Your task to perform on an android device: find photos in the google photos app Image 0: 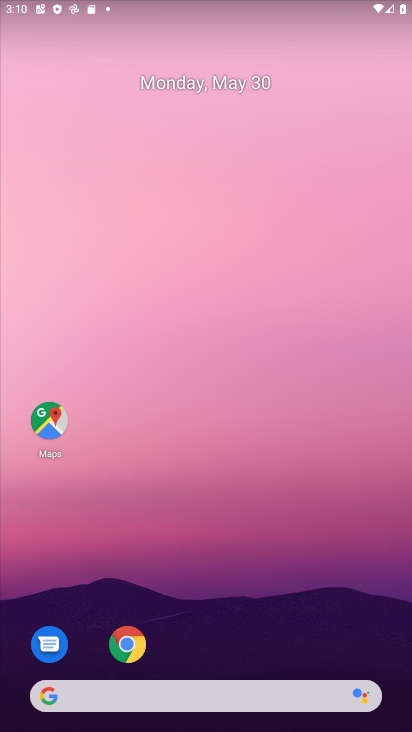
Step 0: drag from (226, 635) to (242, 257)
Your task to perform on an android device: find photos in the google photos app Image 1: 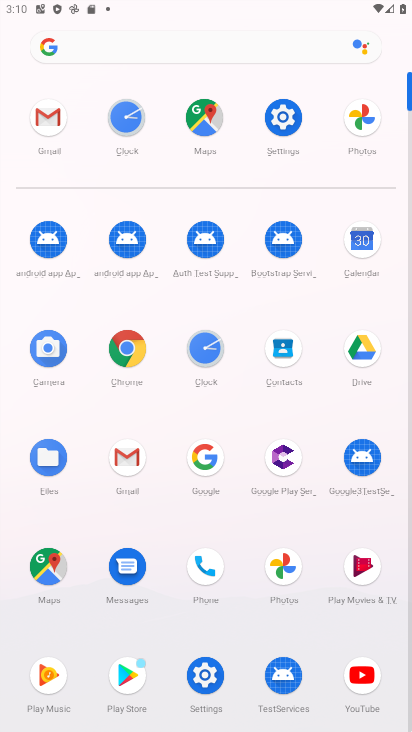
Step 1: click (288, 559)
Your task to perform on an android device: find photos in the google photos app Image 2: 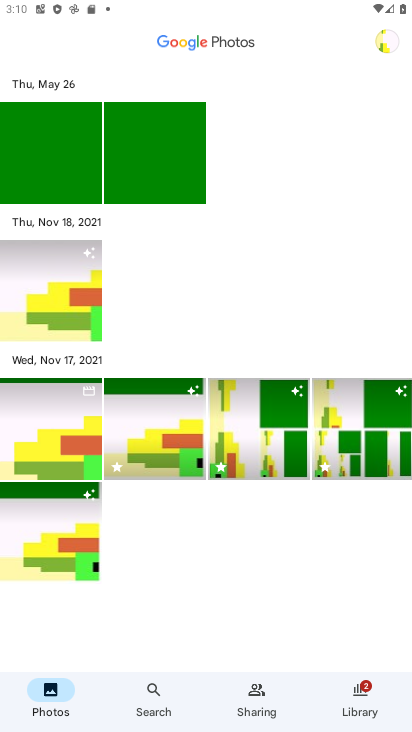
Step 2: click (360, 726)
Your task to perform on an android device: find photos in the google photos app Image 3: 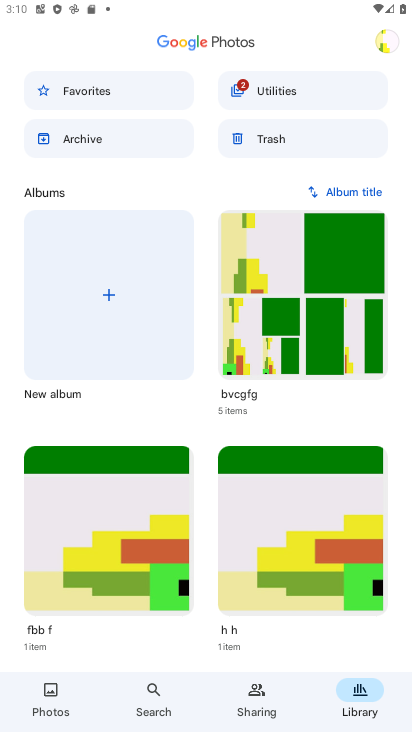
Step 3: click (126, 141)
Your task to perform on an android device: find photos in the google photos app Image 4: 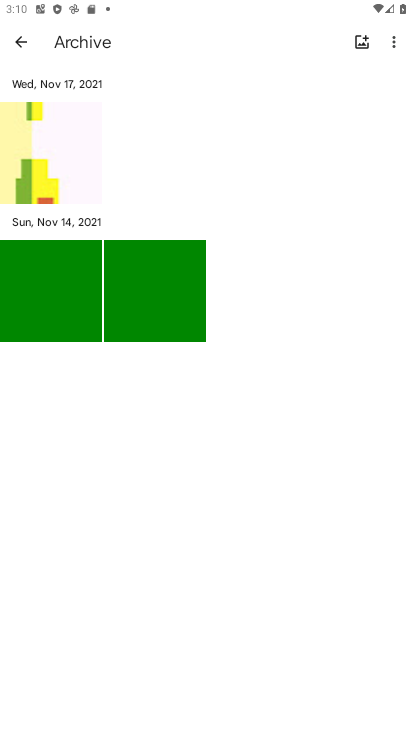
Step 4: task complete